Your task to perform on an android device: Open Google Chrome and open the bookmarks view Image 0: 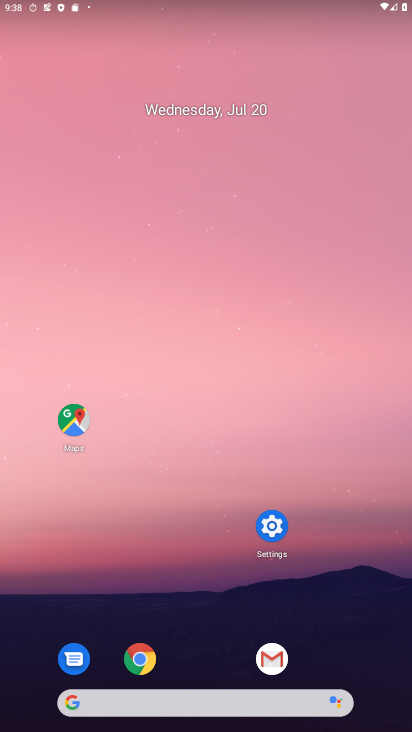
Step 0: click (124, 658)
Your task to perform on an android device: Open Google Chrome and open the bookmarks view Image 1: 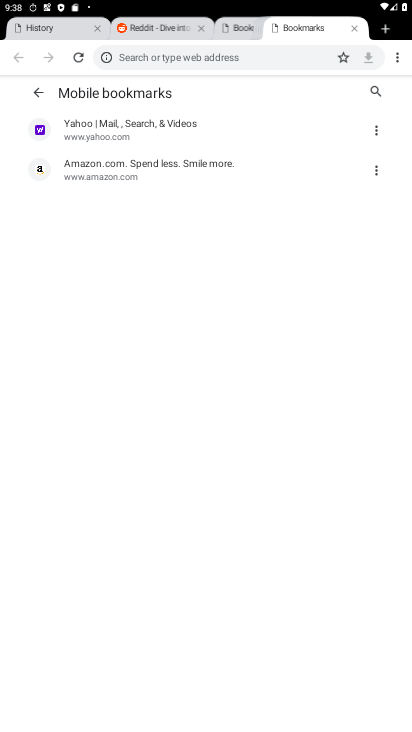
Step 1: click (395, 64)
Your task to perform on an android device: Open Google Chrome and open the bookmarks view Image 2: 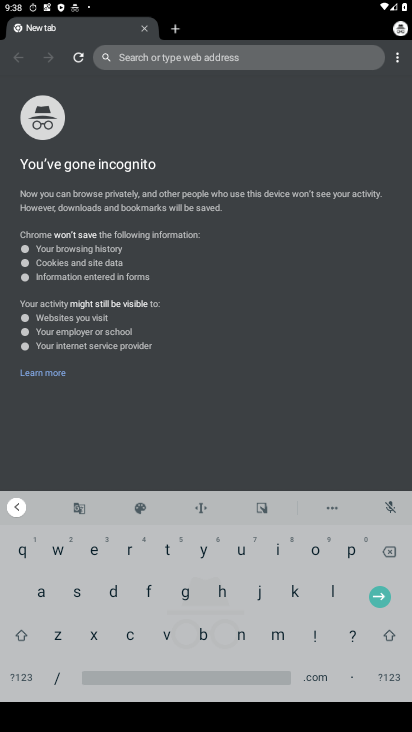
Step 2: click (394, 68)
Your task to perform on an android device: Open Google Chrome and open the bookmarks view Image 3: 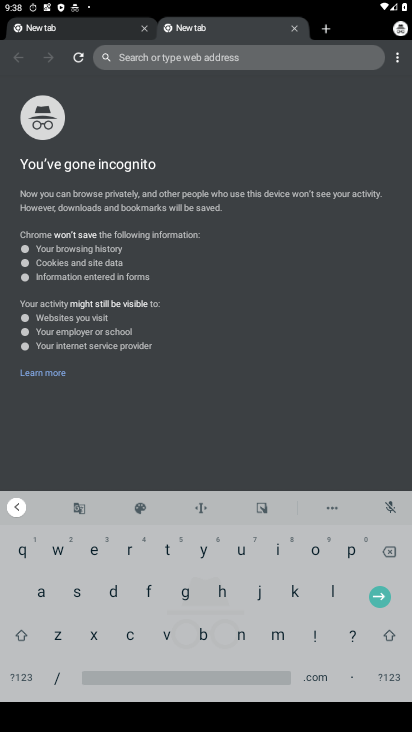
Step 3: click (399, 63)
Your task to perform on an android device: Open Google Chrome and open the bookmarks view Image 4: 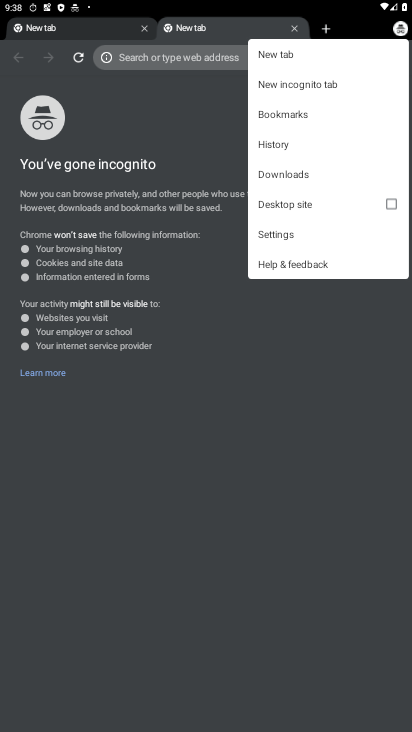
Step 4: click (295, 112)
Your task to perform on an android device: Open Google Chrome and open the bookmarks view Image 5: 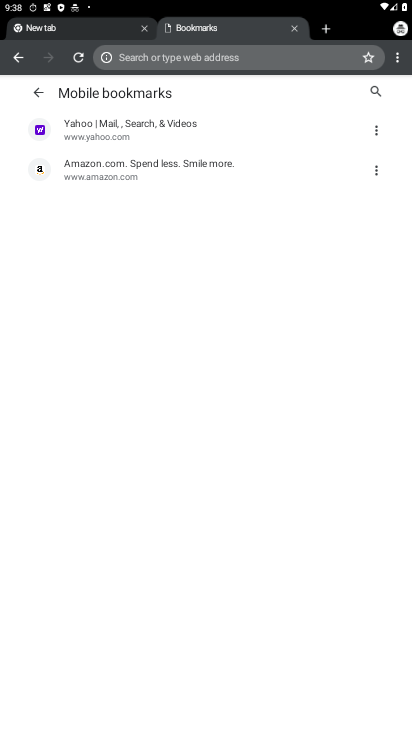
Step 5: task complete